Your task to perform on an android device: Go to Wikipedia Image 0: 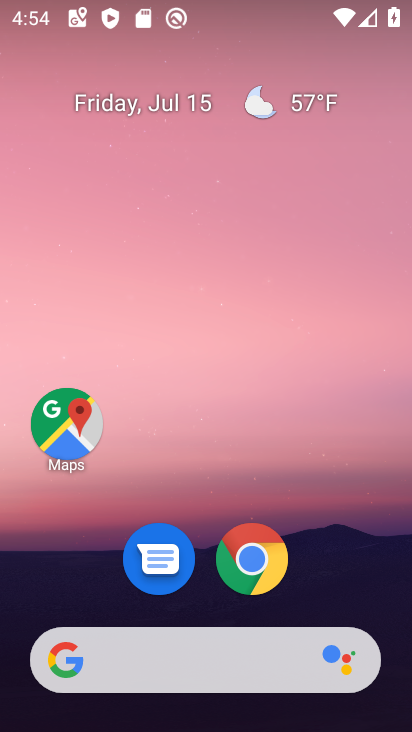
Step 0: click (252, 558)
Your task to perform on an android device: Go to Wikipedia Image 1: 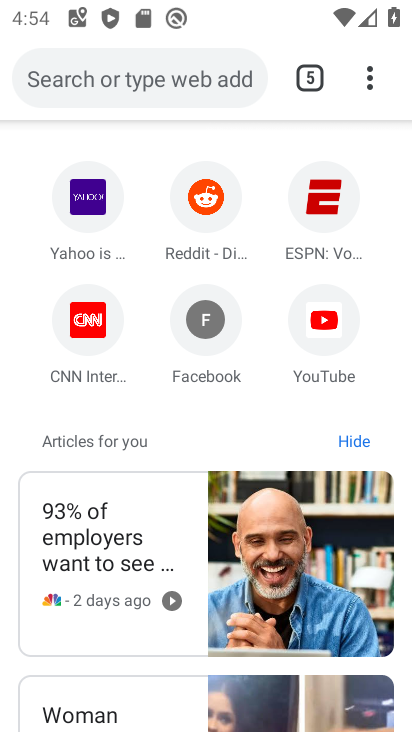
Step 1: click (144, 75)
Your task to perform on an android device: Go to Wikipedia Image 2: 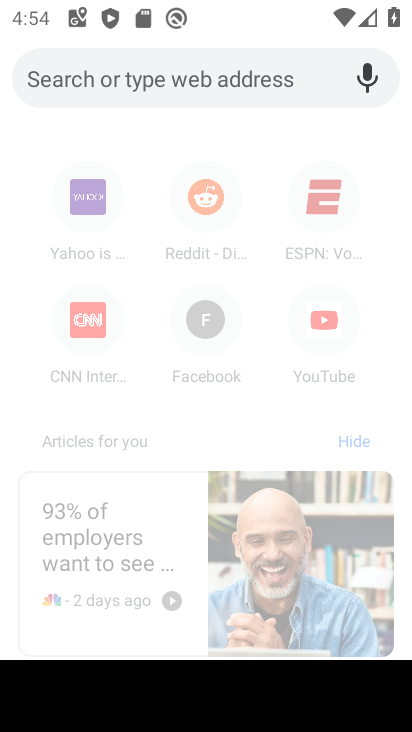
Step 2: type "wikipedia"
Your task to perform on an android device: Go to Wikipedia Image 3: 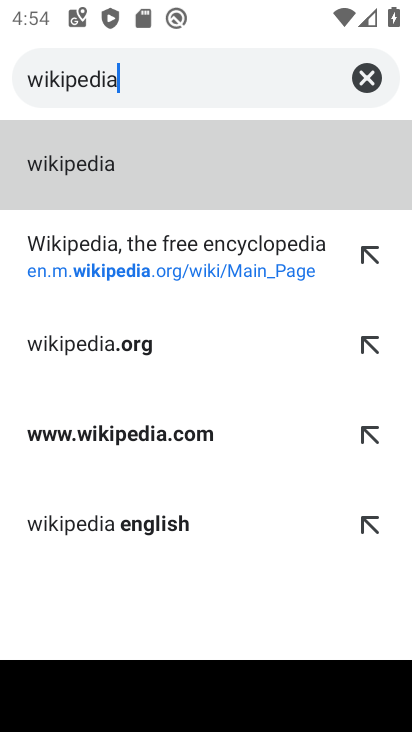
Step 3: click (111, 334)
Your task to perform on an android device: Go to Wikipedia Image 4: 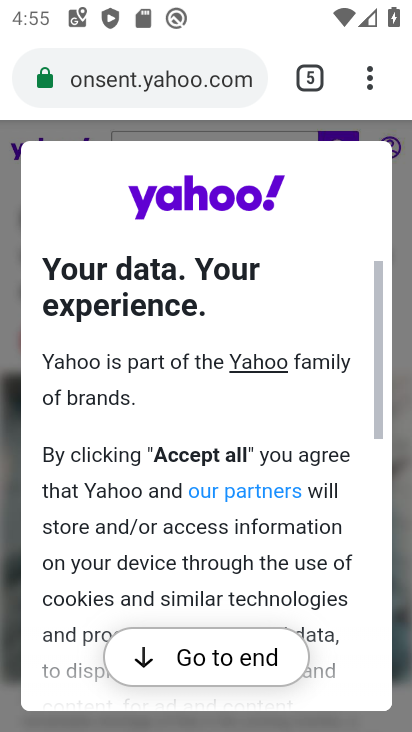
Step 4: click (304, 83)
Your task to perform on an android device: Go to Wikipedia Image 5: 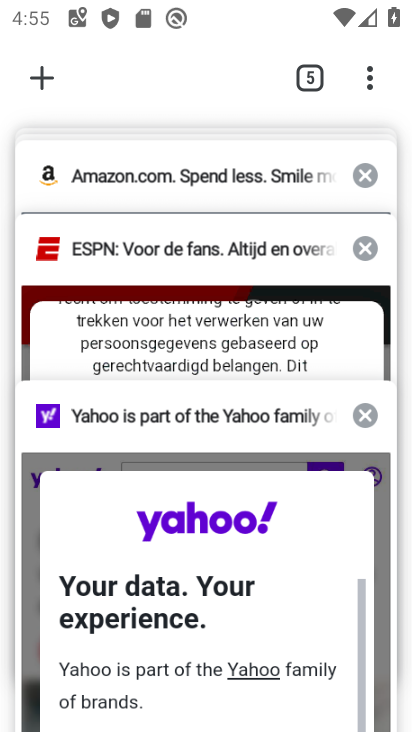
Step 5: drag from (185, 208) to (180, 729)
Your task to perform on an android device: Go to Wikipedia Image 6: 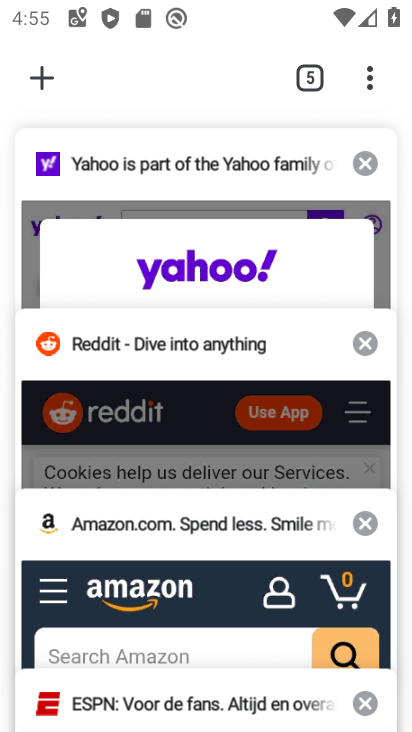
Step 6: click (33, 66)
Your task to perform on an android device: Go to Wikipedia Image 7: 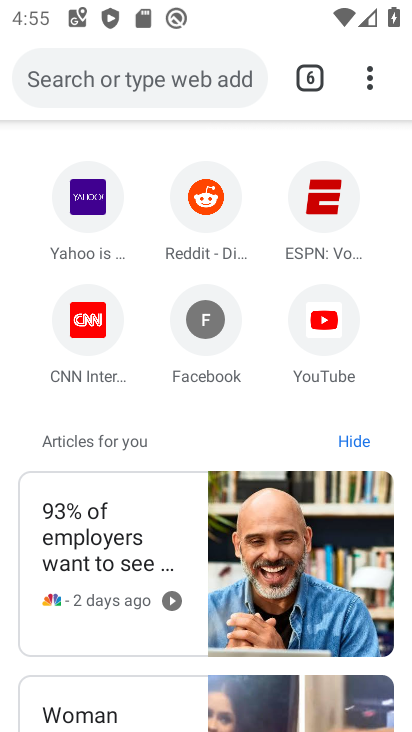
Step 7: click (143, 77)
Your task to perform on an android device: Go to Wikipedia Image 8: 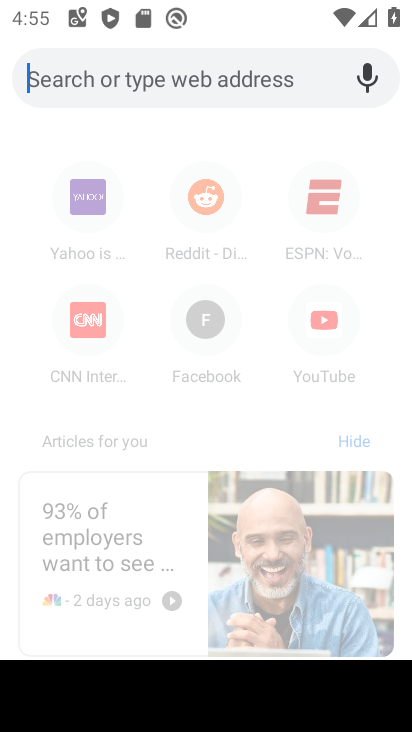
Step 8: type "wikipedia.org"
Your task to perform on an android device: Go to Wikipedia Image 9: 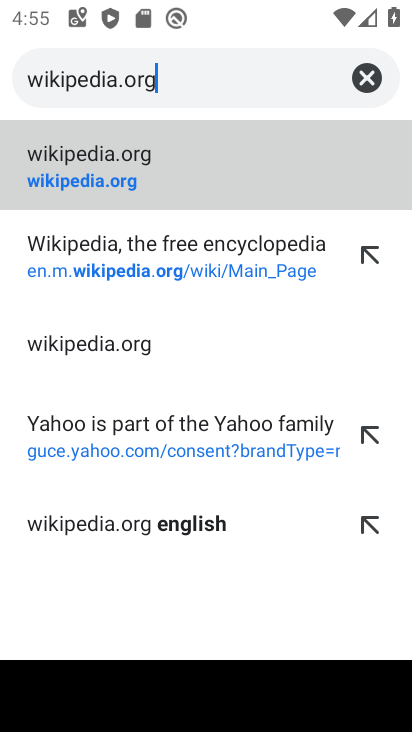
Step 9: click (116, 166)
Your task to perform on an android device: Go to Wikipedia Image 10: 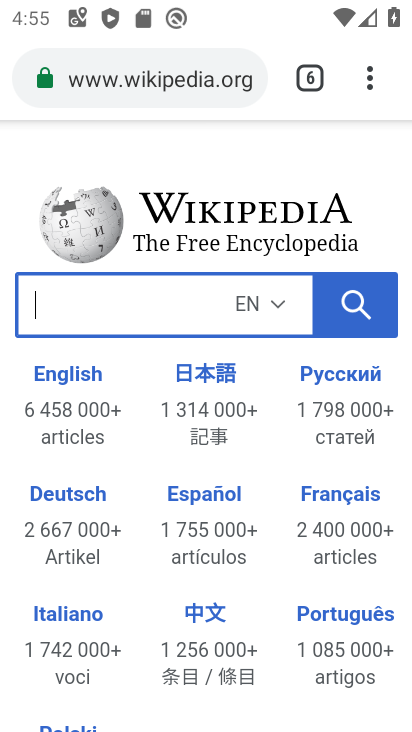
Step 10: task complete